Your task to perform on an android device: change text size in settings app Image 0: 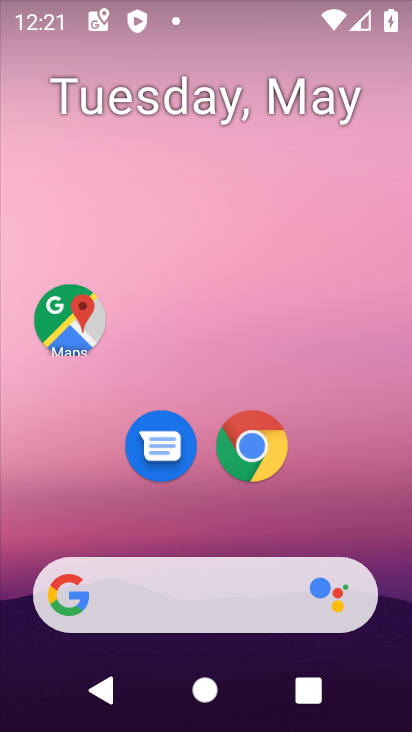
Step 0: drag from (320, 503) to (327, 29)
Your task to perform on an android device: change text size in settings app Image 1: 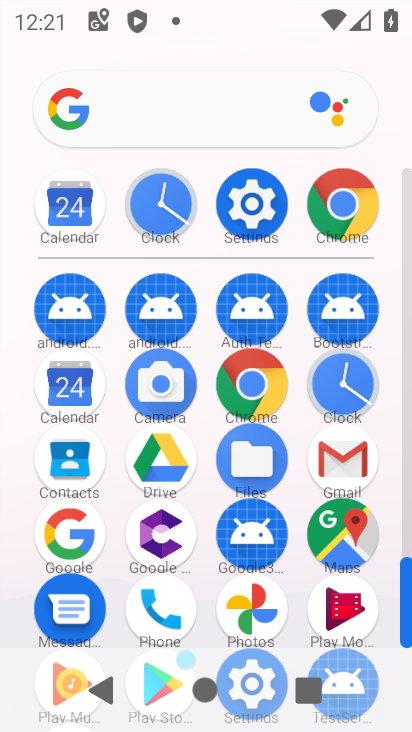
Step 1: click (249, 214)
Your task to perform on an android device: change text size in settings app Image 2: 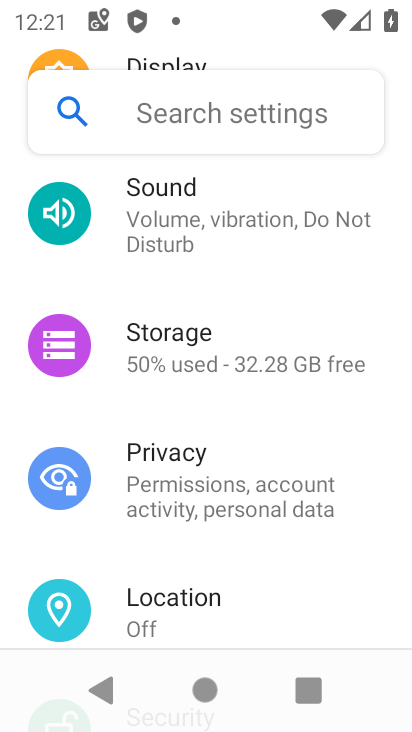
Step 2: drag from (249, 207) to (184, 520)
Your task to perform on an android device: change text size in settings app Image 3: 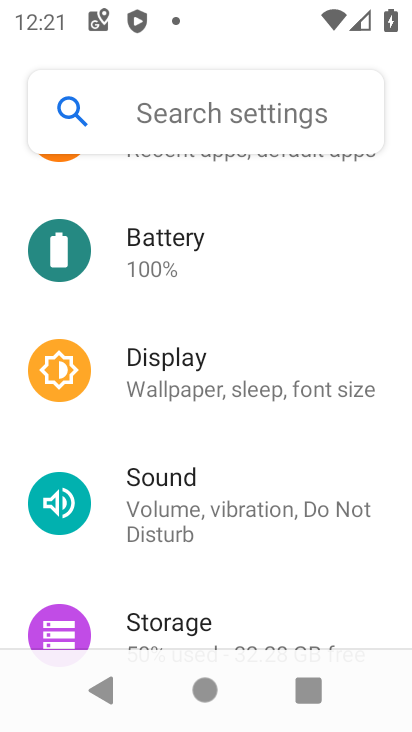
Step 3: drag from (243, 222) to (312, 633)
Your task to perform on an android device: change text size in settings app Image 4: 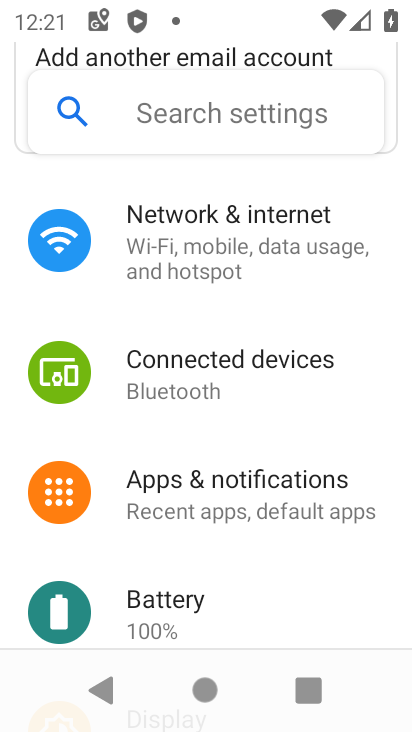
Step 4: drag from (281, 543) to (292, 203)
Your task to perform on an android device: change text size in settings app Image 5: 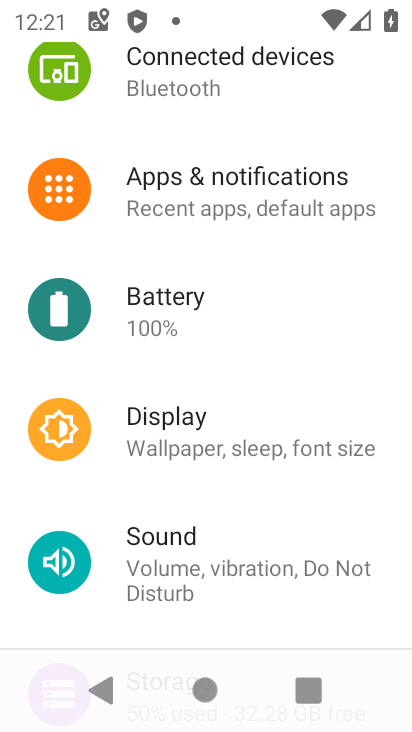
Step 5: click (283, 452)
Your task to perform on an android device: change text size in settings app Image 6: 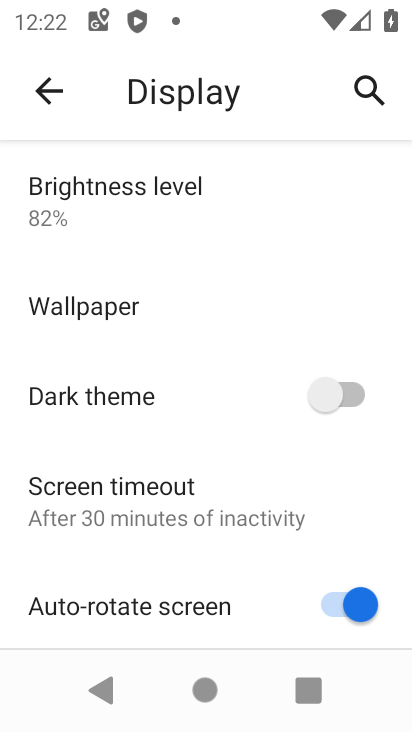
Step 6: drag from (202, 580) to (258, 197)
Your task to perform on an android device: change text size in settings app Image 7: 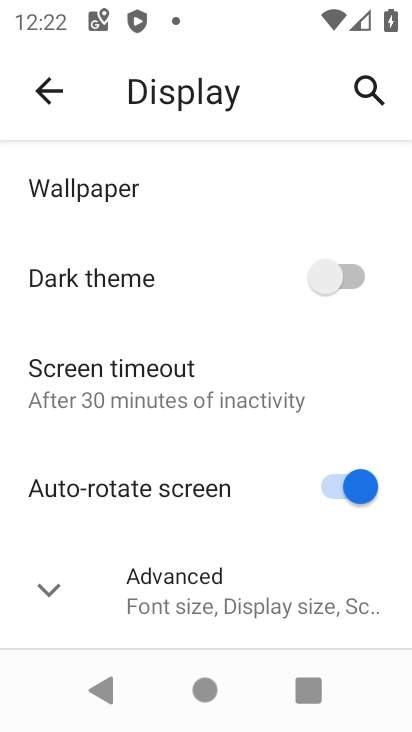
Step 7: click (215, 623)
Your task to perform on an android device: change text size in settings app Image 8: 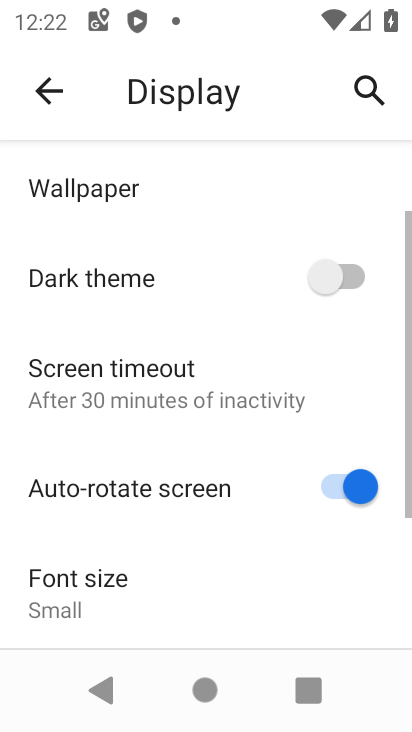
Step 8: drag from (218, 607) to (289, 146)
Your task to perform on an android device: change text size in settings app Image 9: 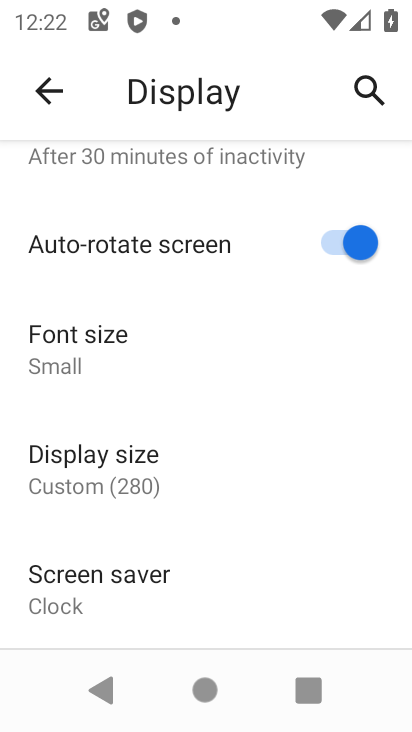
Step 9: drag from (197, 279) to (184, 562)
Your task to perform on an android device: change text size in settings app Image 10: 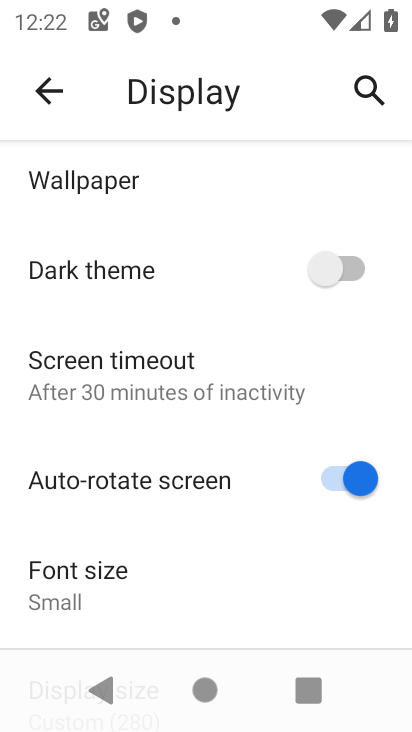
Step 10: click (70, 583)
Your task to perform on an android device: change text size in settings app Image 11: 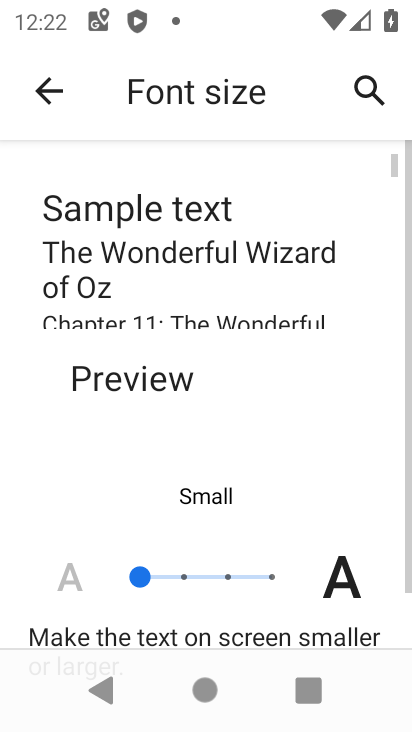
Step 11: click (169, 577)
Your task to perform on an android device: change text size in settings app Image 12: 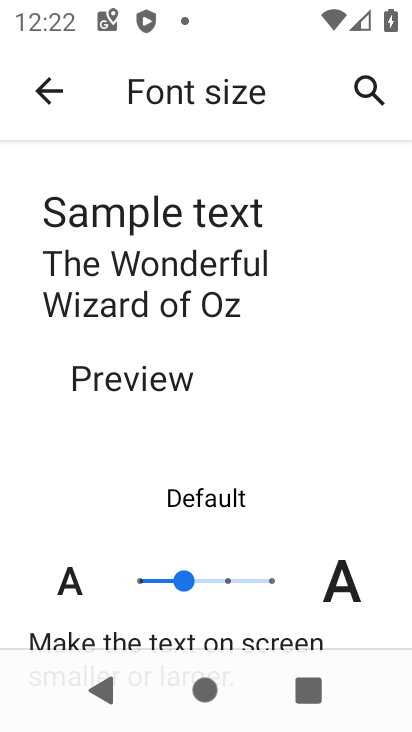
Step 12: task complete